Your task to perform on an android device: Check the weather Image 0: 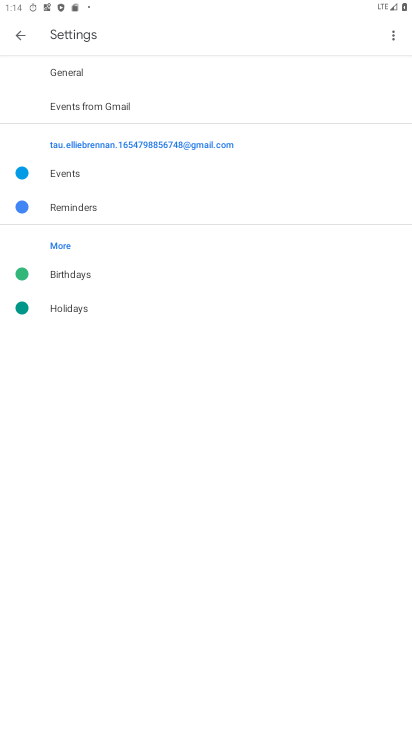
Step 0: press home button
Your task to perform on an android device: Check the weather Image 1: 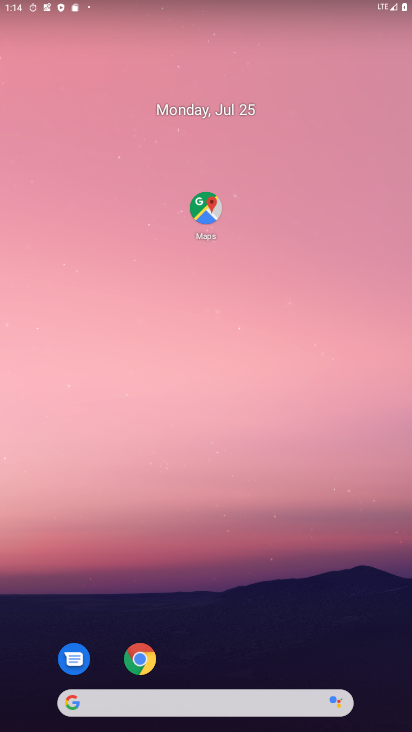
Step 1: click (107, 702)
Your task to perform on an android device: Check the weather Image 2: 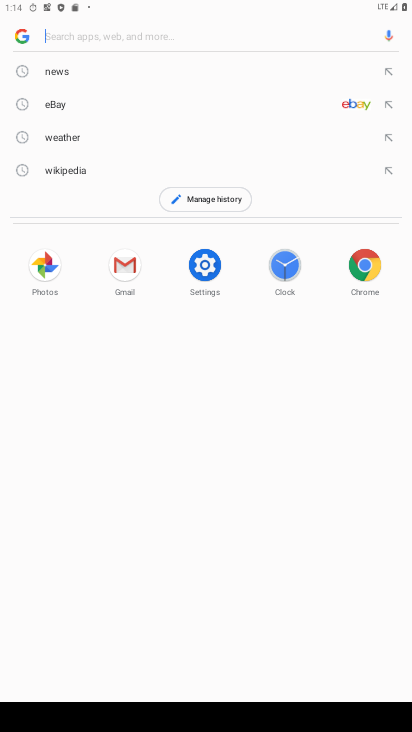
Step 2: type "weather"
Your task to perform on an android device: Check the weather Image 3: 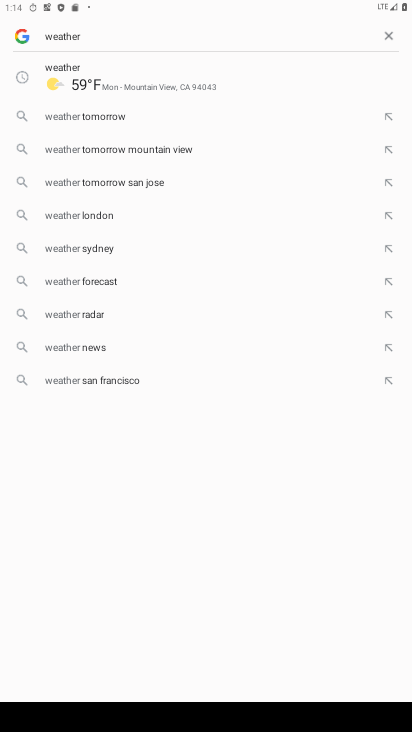
Step 3: click (75, 72)
Your task to perform on an android device: Check the weather Image 4: 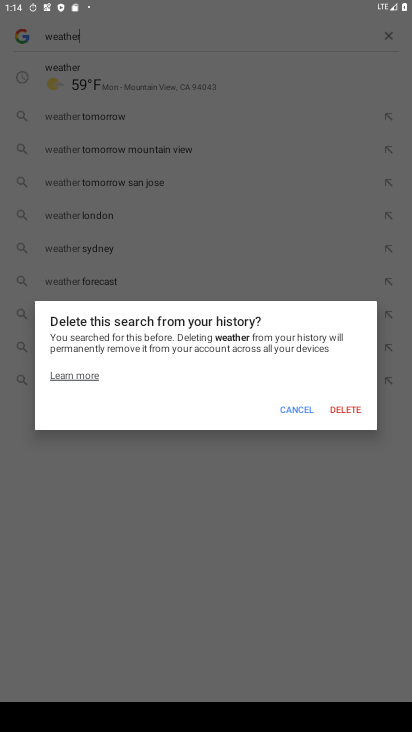
Step 4: click (291, 408)
Your task to perform on an android device: Check the weather Image 5: 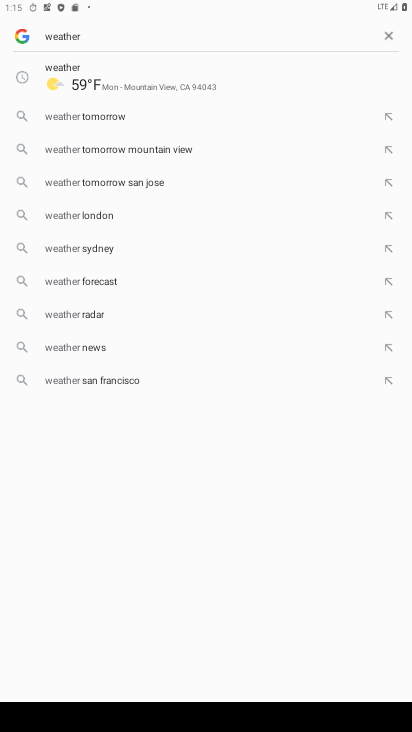
Step 5: task complete